Your task to perform on an android device: Open display settings Image 0: 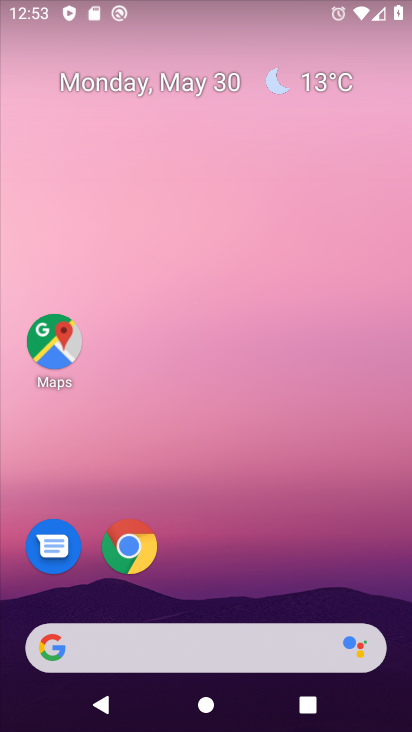
Step 0: press home button
Your task to perform on an android device: Open display settings Image 1: 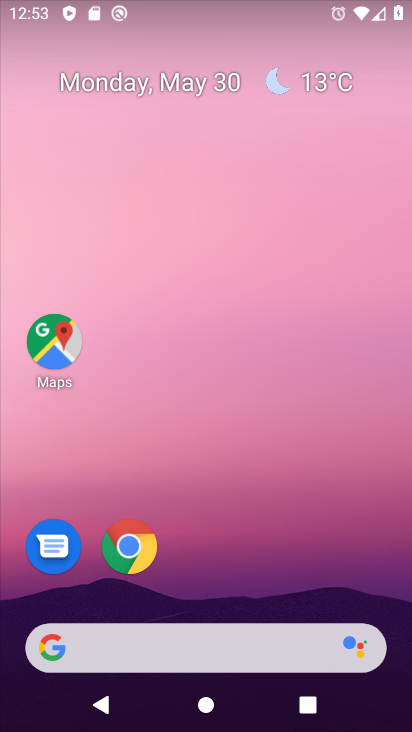
Step 1: drag from (240, 587) to (268, 12)
Your task to perform on an android device: Open display settings Image 2: 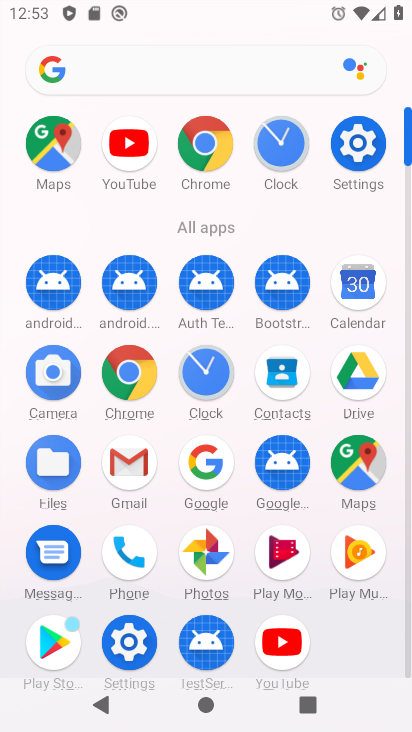
Step 2: click (364, 135)
Your task to perform on an android device: Open display settings Image 3: 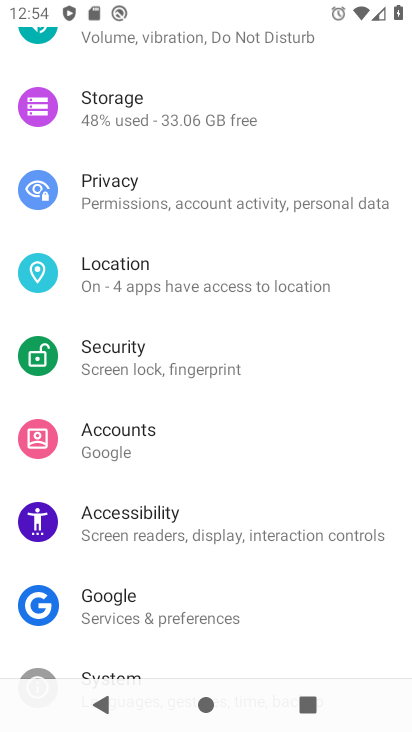
Step 3: drag from (297, 100) to (193, 574)
Your task to perform on an android device: Open display settings Image 4: 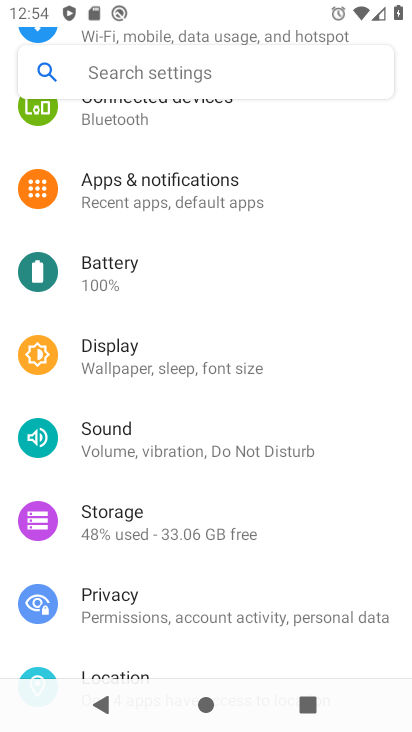
Step 4: click (114, 359)
Your task to perform on an android device: Open display settings Image 5: 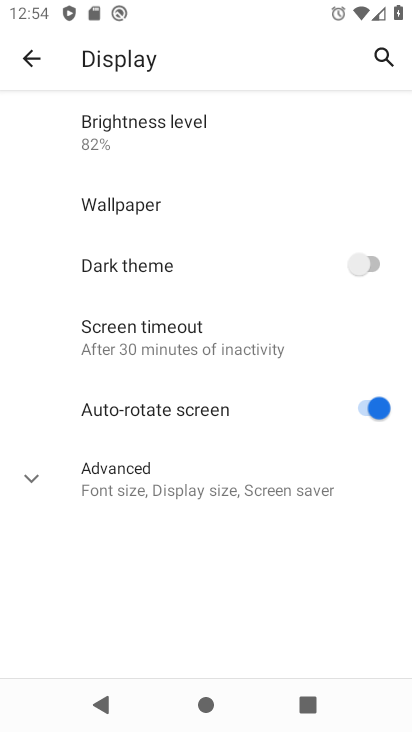
Step 5: task complete